Your task to perform on an android device: Search for sushi restaurants on Maps Image 0: 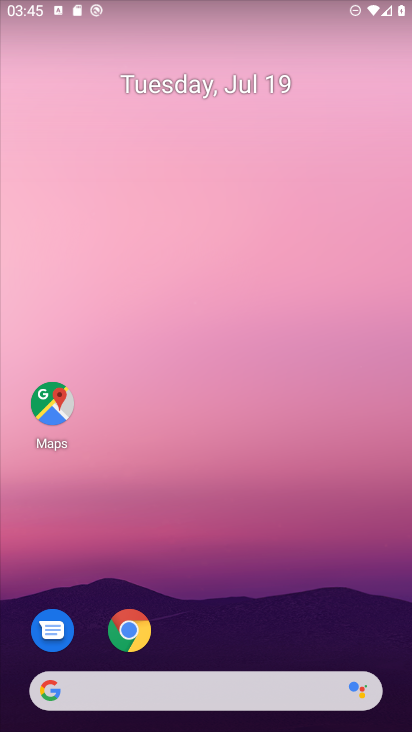
Step 0: click (53, 399)
Your task to perform on an android device: Search for sushi restaurants on Maps Image 1: 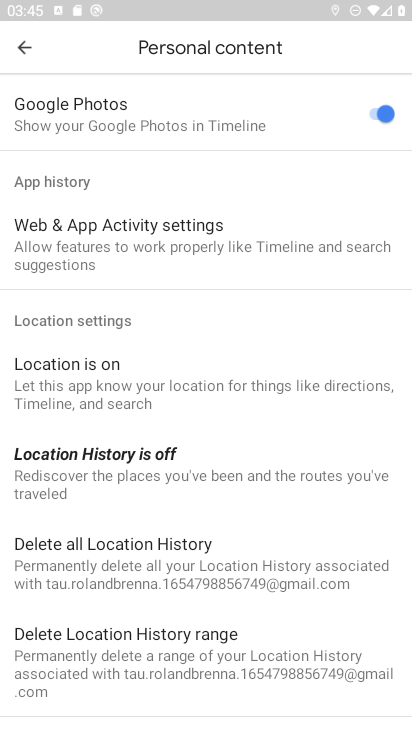
Step 1: press back button
Your task to perform on an android device: Search for sushi restaurants on Maps Image 2: 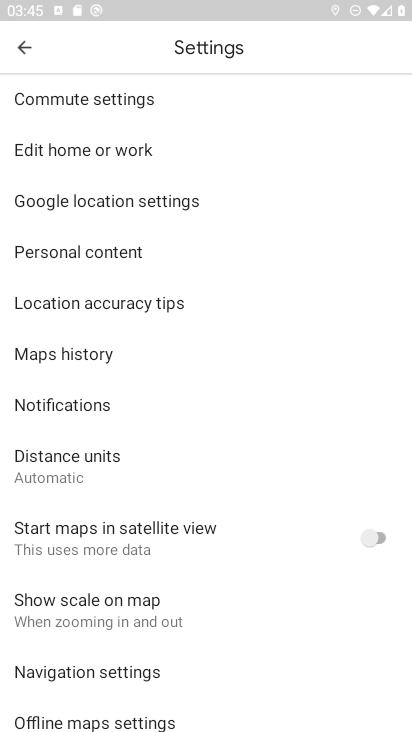
Step 2: press back button
Your task to perform on an android device: Search for sushi restaurants on Maps Image 3: 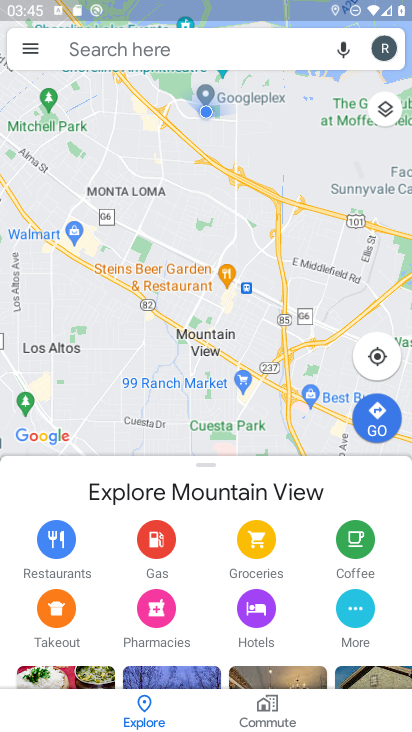
Step 3: click (140, 48)
Your task to perform on an android device: Search for sushi restaurants on Maps Image 4: 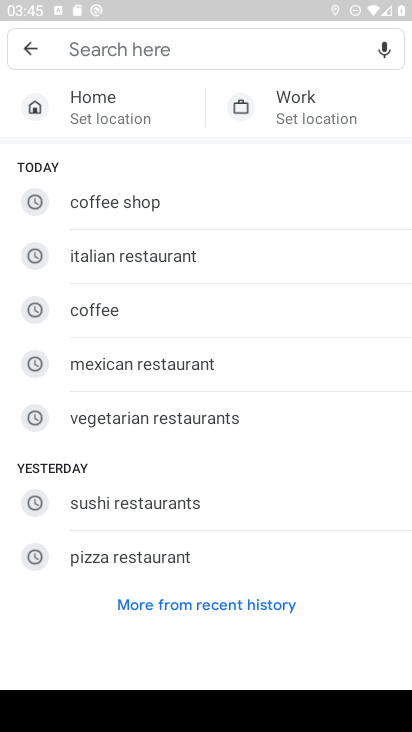
Step 4: type "sushi restaurants"
Your task to perform on an android device: Search for sushi restaurants on Maps Image 5: 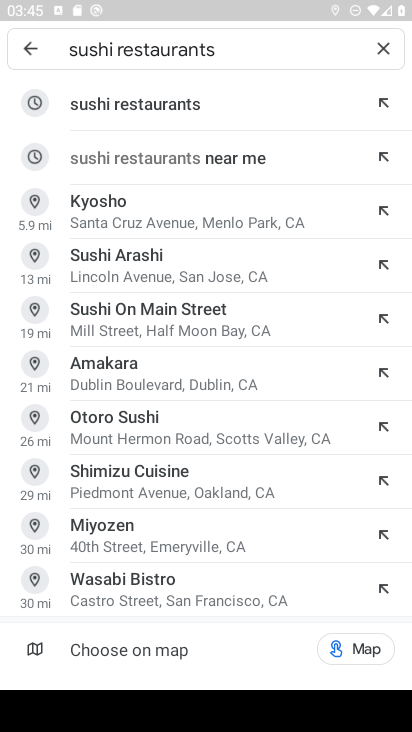
Step 5: click (124, 96)
Your task to perform on an android device: Search for sushi restaurants on Maps Image 6: 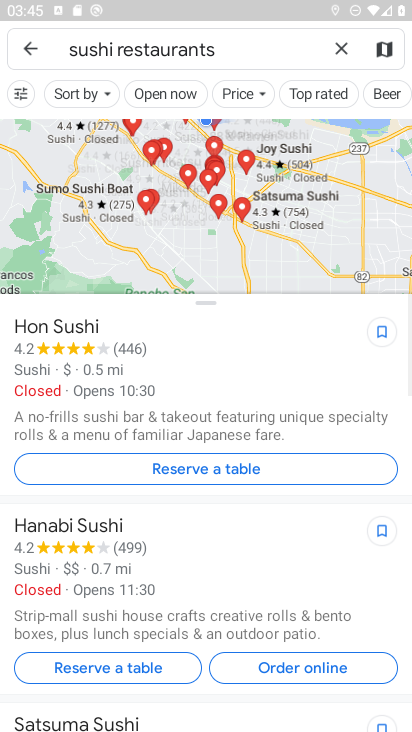
Step 6: task complete